Your task to perform on an android device: refresh tabs in the chrome app Image 0: 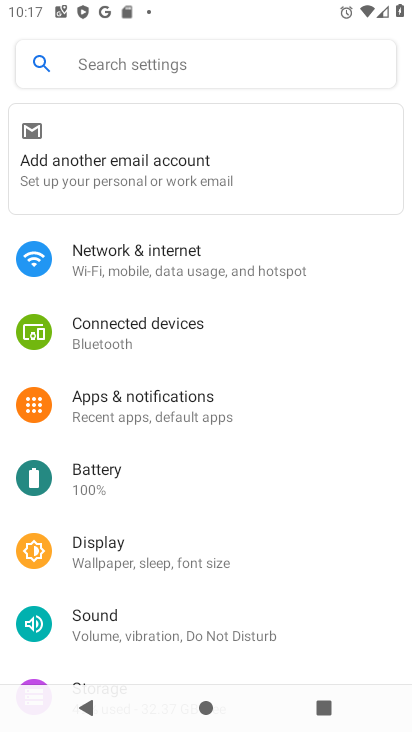
Step 0: press home button
Your task to perform on an android device: refresh tabs in the chrome app Image 1: 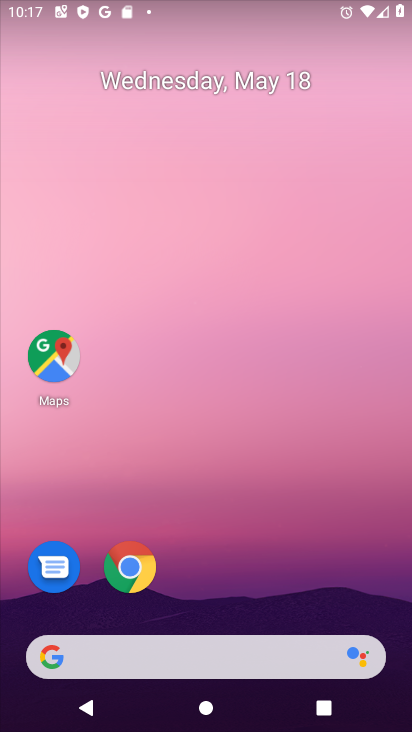
Step 1: click (136, 584)
Your task to perform on an android device: refresh tabs in the chrome app Image 2: 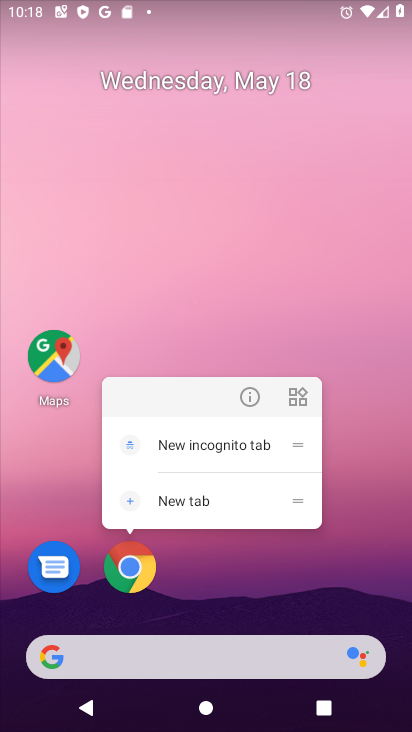
Step 2: click (136, 584)
Your task to perform on an android device: refresh tabs in the chrome app Image 3: 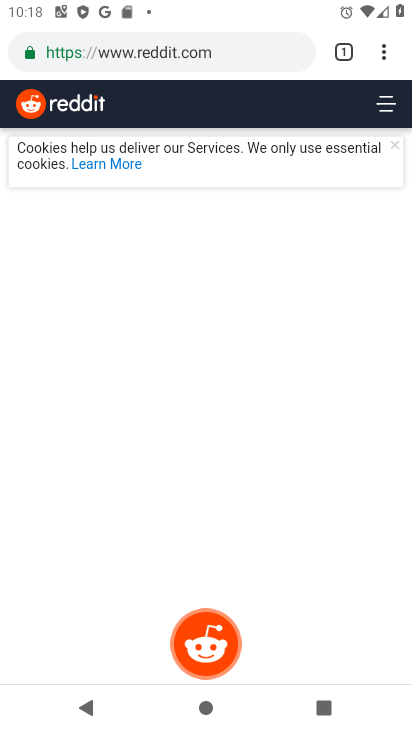
Step 3: click (385, 51)
Your task to perform on an android device: refresh tabs in the chrome app Image 4: 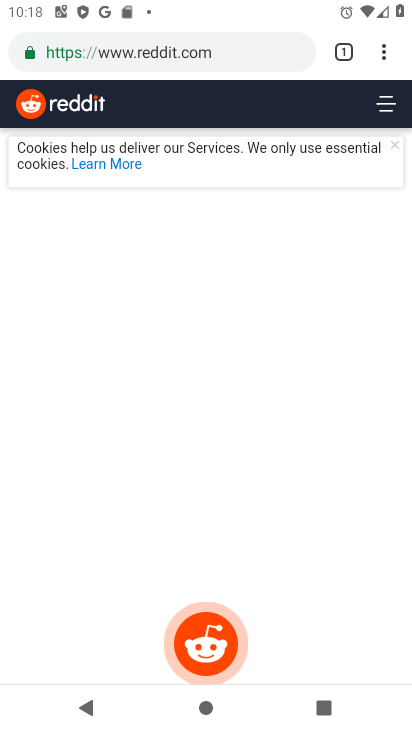
Step 4: task complete